Your task to perform on an android device: Open eBay Image 0: 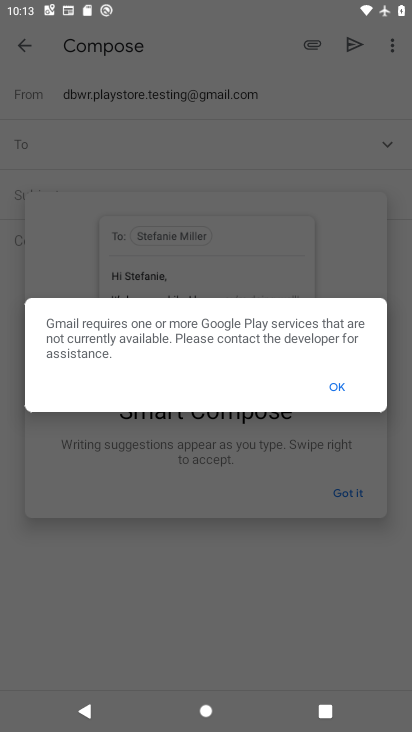
Step 0: press home button
Your task to perform on an android device: Open eBay Image 1: 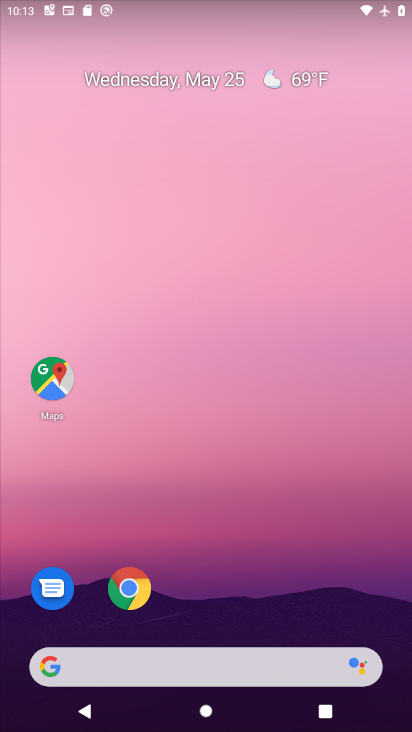
Step 1: drag from (346, 595) to (359, 171)
Your task to perform on an android device: Open eBay Image 2: 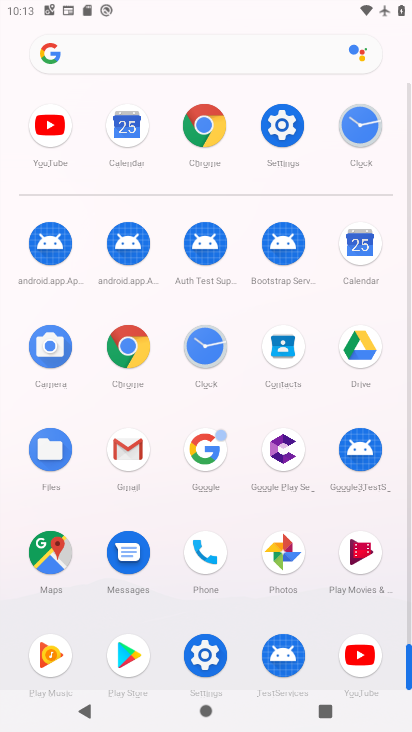
Step 2: click (207, 142)
Your task to perform on an android device: Open eBay Image 3: 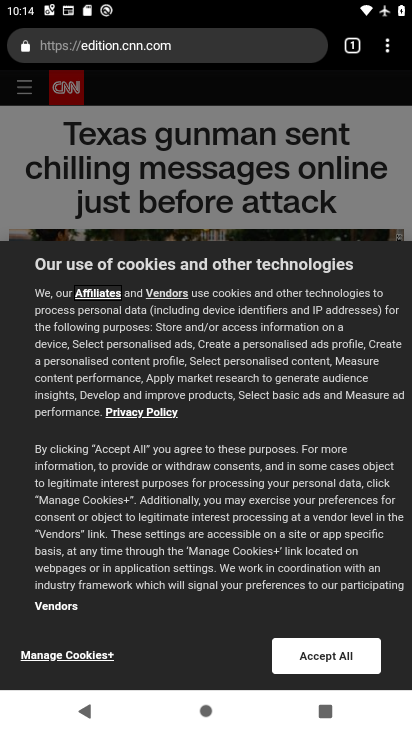
Step 3: click (233, 54)
Your task to perform on an android device: Open eBay Image 4: 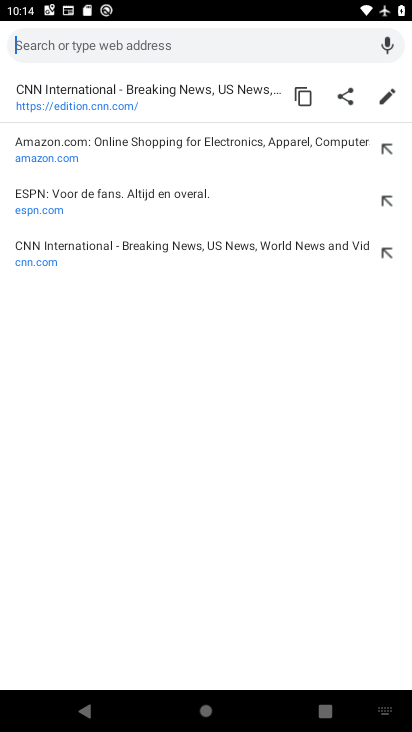
Step 4: type "ebay"
Your task to perform on an android device: Open eBay Image 5: 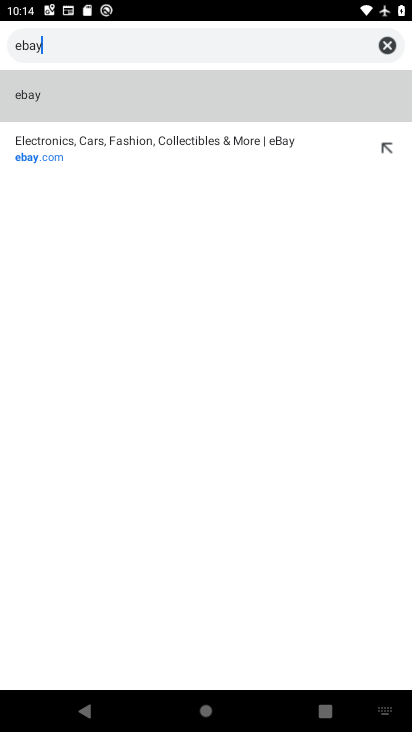
Step 5: click (92, 84)
Your task to perform on an android device: Open eBay Image 6: 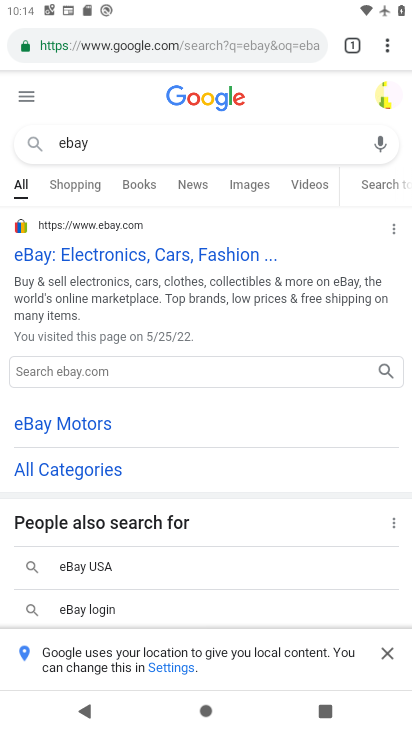
Step 6: task complete